Your task to perform on an android device: open a new tab in the chrome app Image 0: 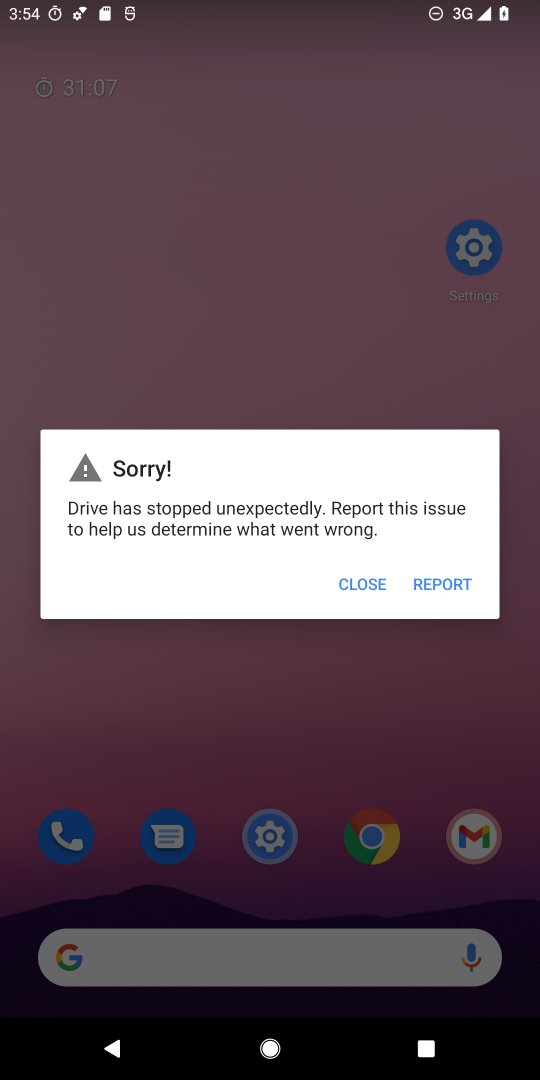
Step 0: click (368, 580)
Your task to perform on an android device: open a new tab in the chrome app Image 1: 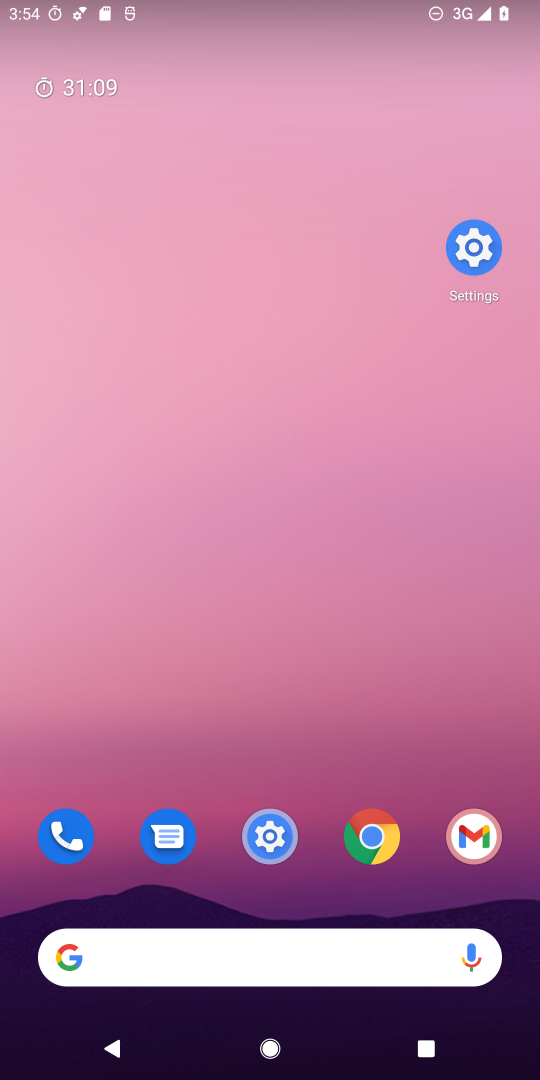
Step 1: click (371, 847)
Your task to perform on an android device: open a new tab in the chrome app Image 2: 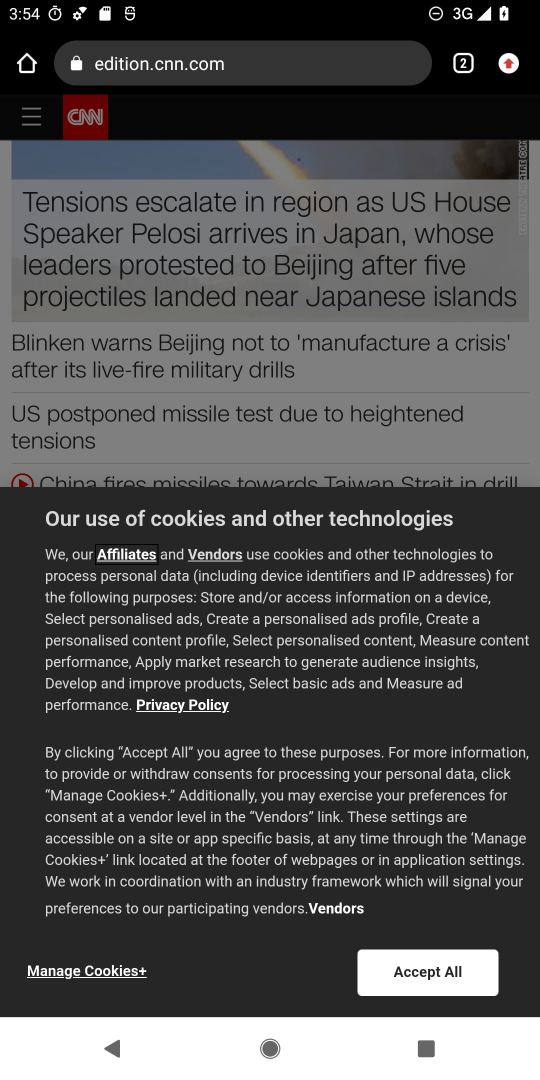
Step 2: click (503, 59)
Your task to perform on an android device: open a new tab in the chrome app Image 3: 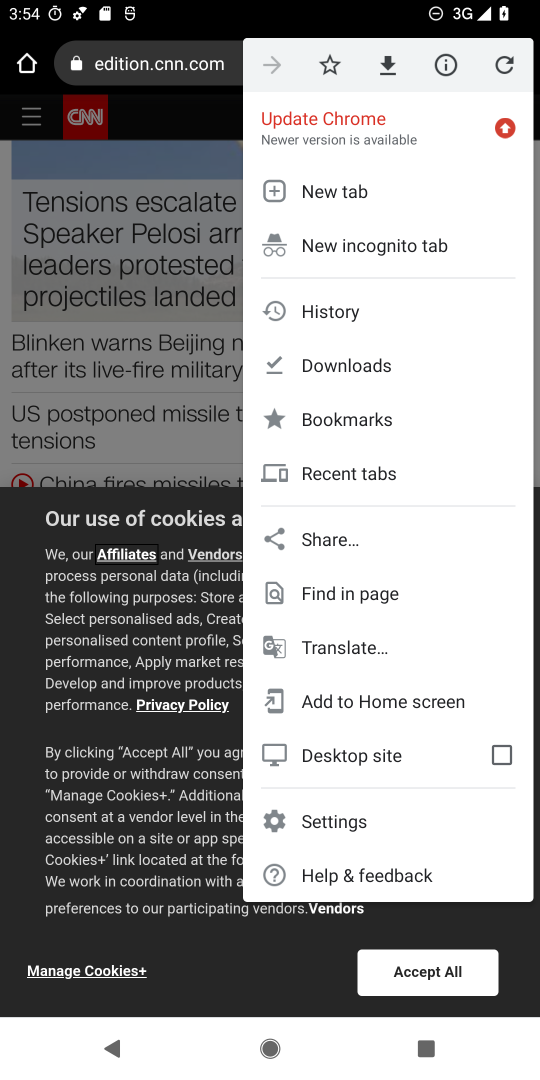
Step 3: click (330, 179)
Your task to perform on an android device: open a new tab in the chrome app Image 4: 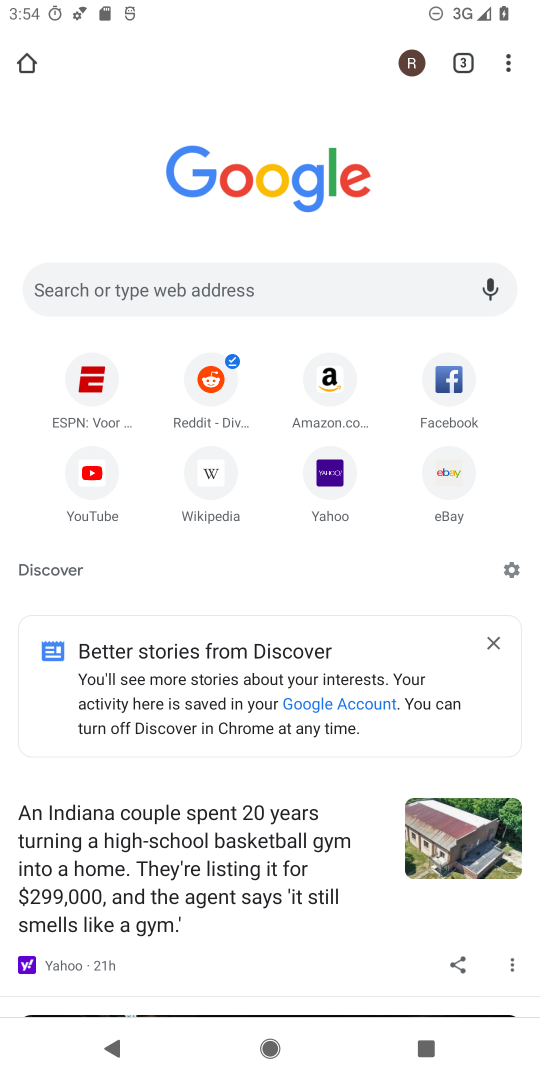
Step 4: task complete